Your task to perform on an android device: Show me the alarms in the clock app Image 0: 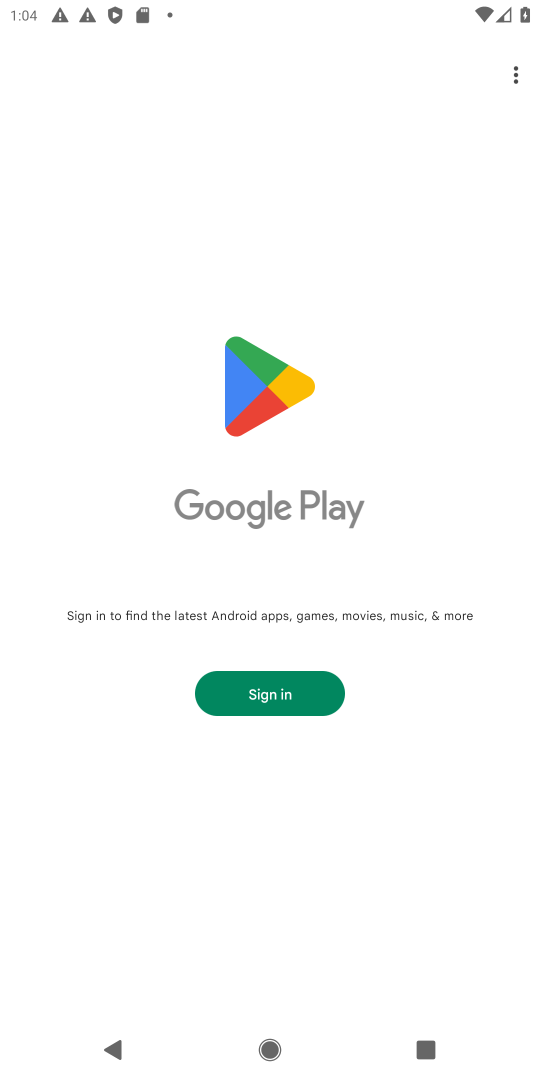
Step 0: press home button
Your task to perform on an android device: Show me the alarms in the clock app Image 1: 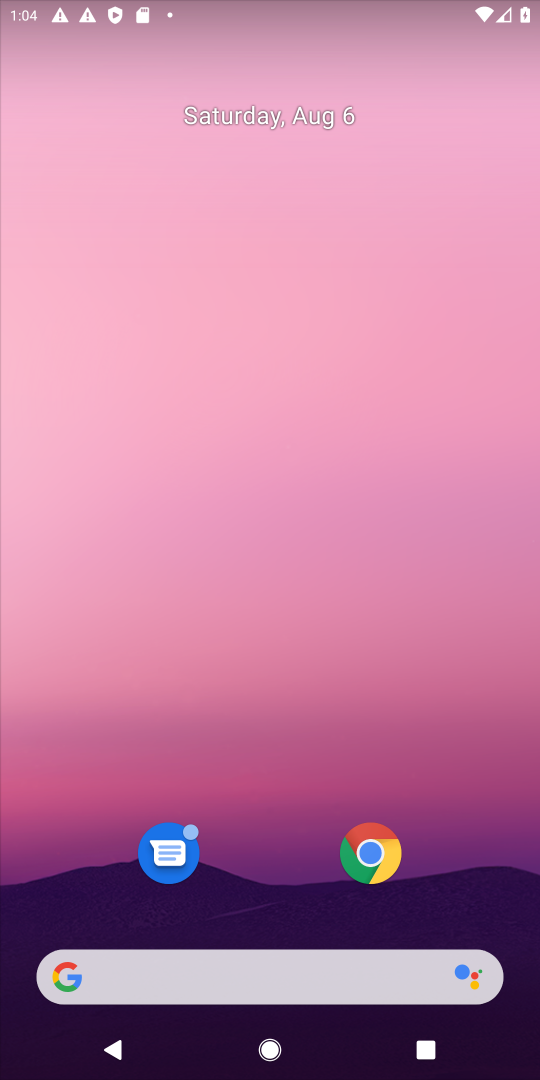
Step 1: drag from (473, 760) to (413, 199)
Your task to perform on an android device: Show me the alarms in the clock app Image 2: 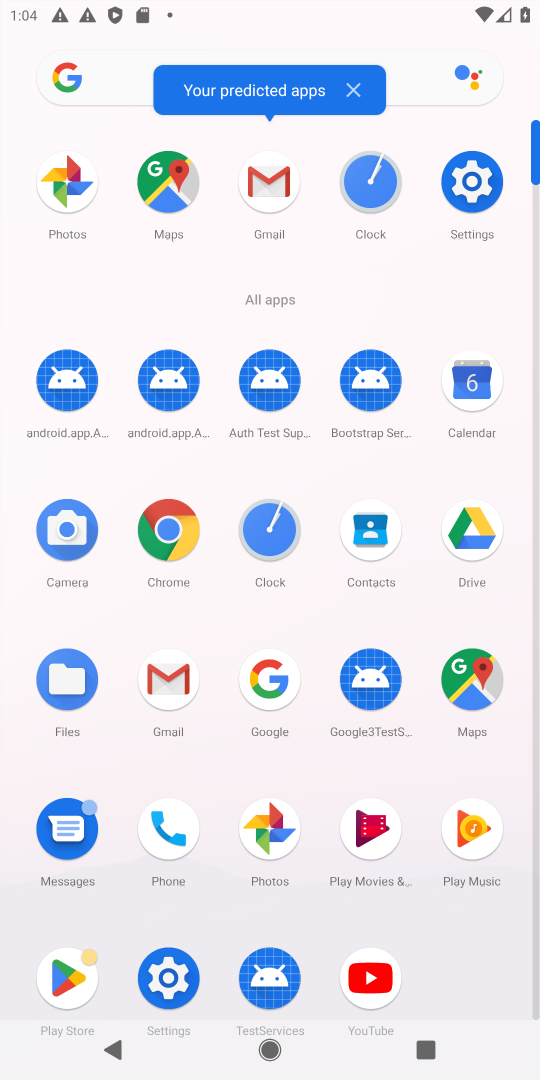
Step 2: click (268, 529)
Your task to perform on an android device: Show me the alarms in the clock app Image 3: 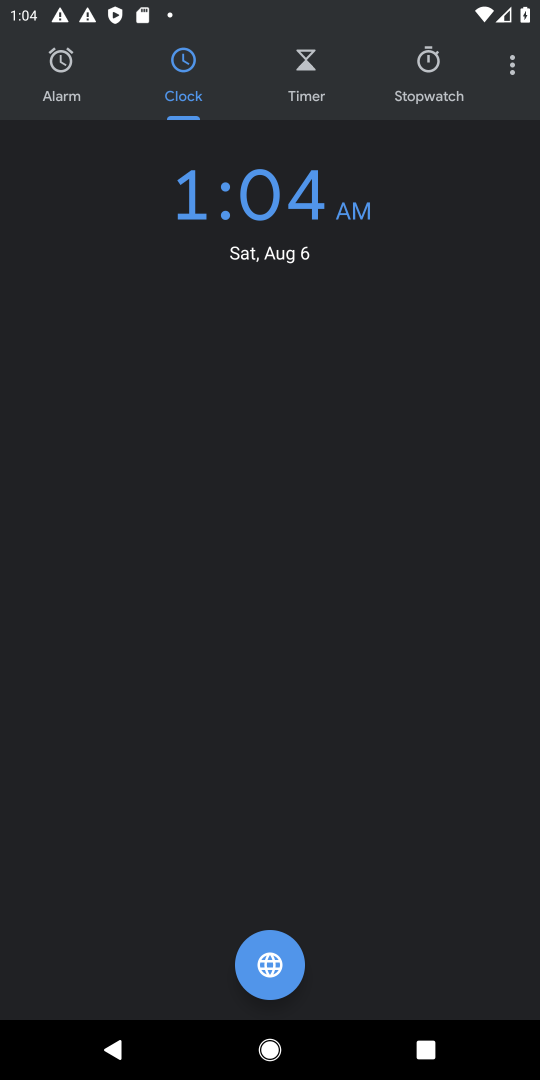
Step 3: click (60, 68)
Your task to perform on an android device: Show me the alarms in the clock app Image 4: 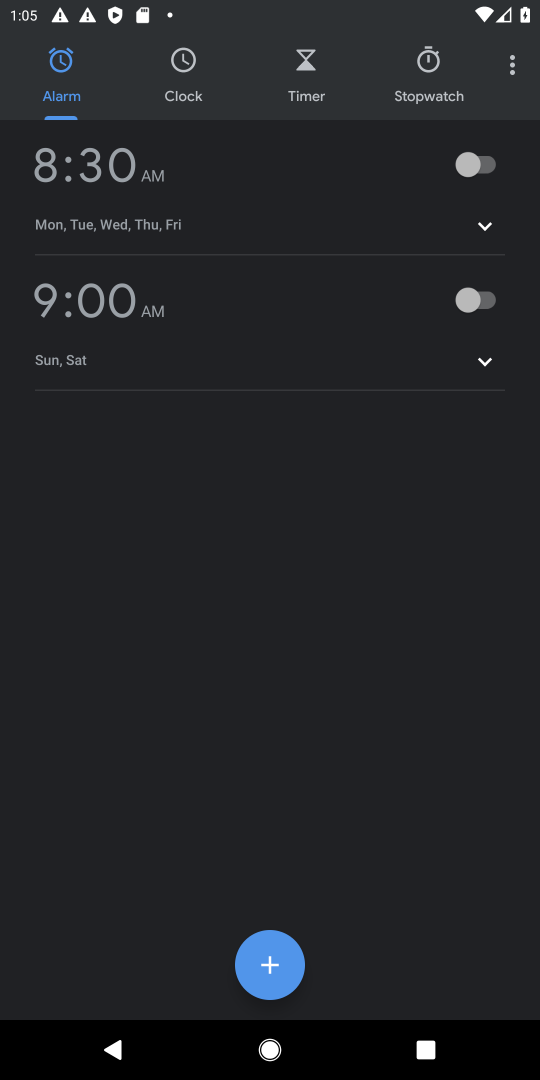
Step 4: task complete